Your task to perform on an android device: check out phone information Image 0: 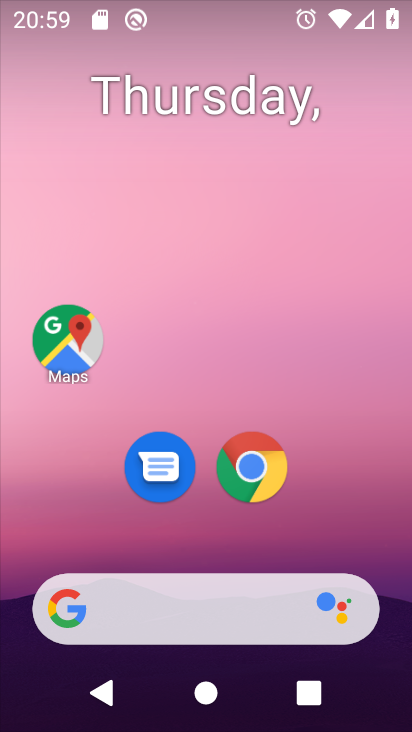
Step 0: click (327, 521)
Your task to perform on an android device: check out phone information Image 1: 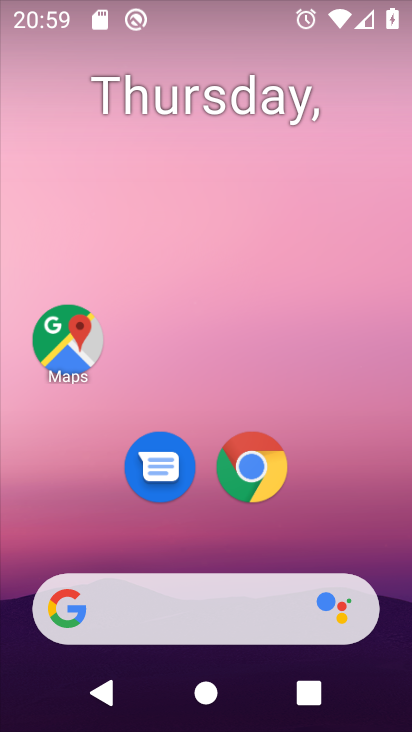
Step 1: drag from (311, 509) to (322, 179)
Your task to perform on an android device: check out phone information Image 2: 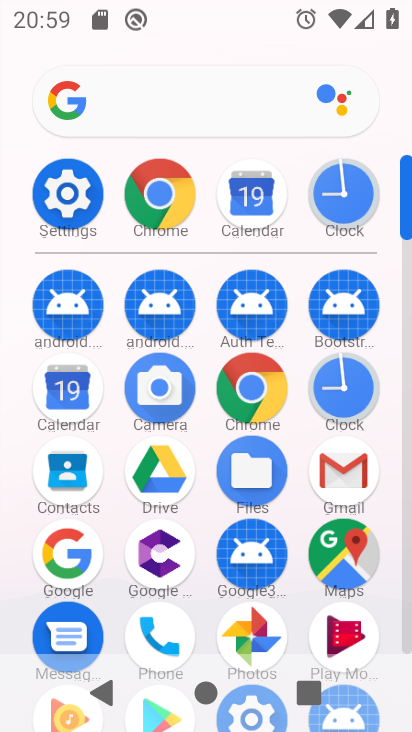
Step 2: click (79, 182)
Your task to perform on an android device: check out phone information Image 3: 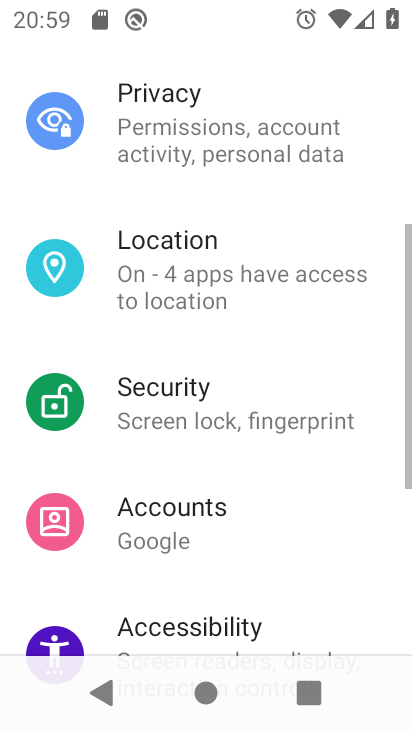
Step 3: drag from (192, 614) to (211, 213)
Your task to perform on an android device: check out phone information Image 4: 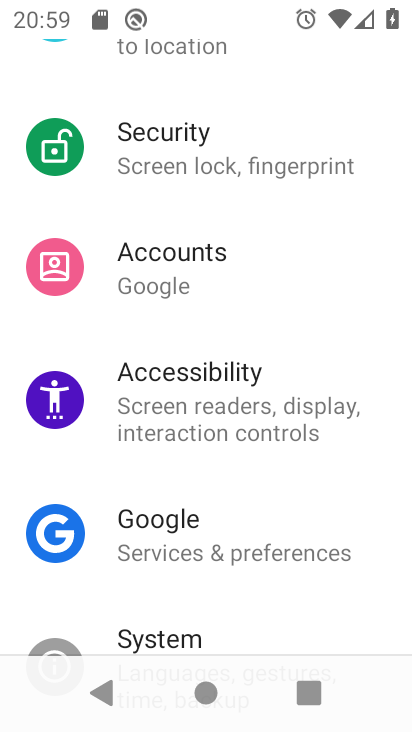
Step 4: drag from (192, 626) to (289, 63)
Your task to perform on an android device: check out phone information Image 5: 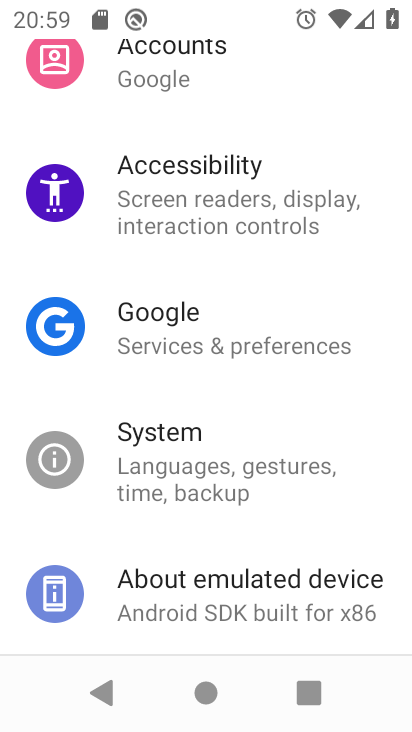
Step 5: click (326, 596)
Your task to perform on an android device: check out phone information Image 6: 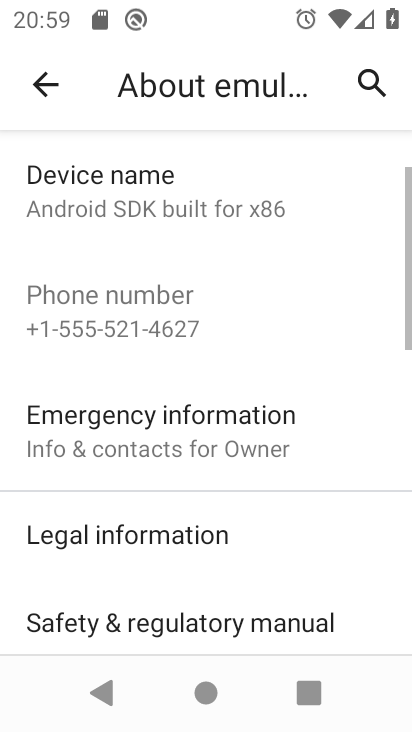
Step 6: task complete